Your task to perform on an android device: Open CNN.com Image 0: 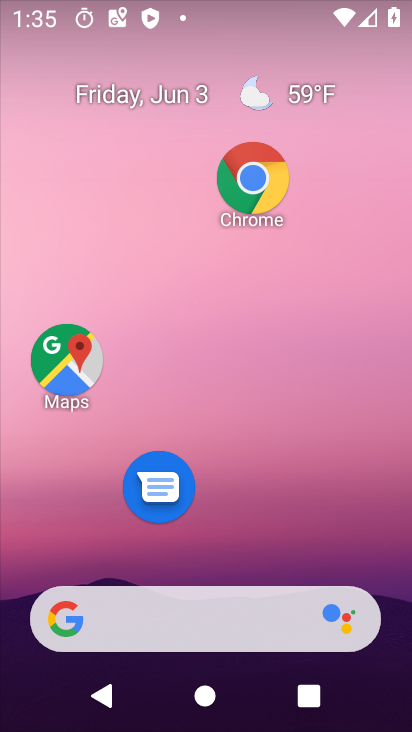
Step 0: press home button
Your task to perform on an android device: Open CNN.com Image 1: 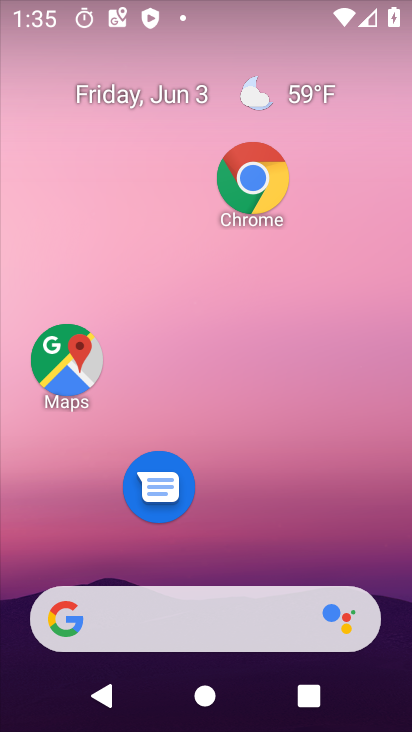
Step 1: click (249, 174)
Your task to perform on an android device: Open CNN.com Image 2: 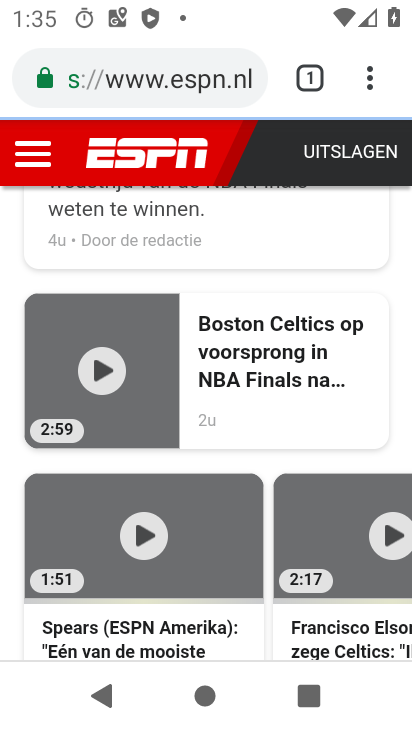
Step 2: click (303, 76)
Your task to perform on an android device: Open CNN.com Image 3: 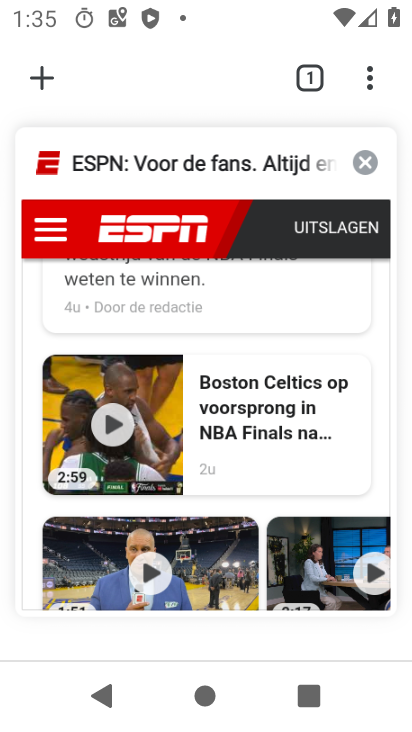
Step 3: click (368, 163)
Your task to perform on an android device: Open CNN.com Image 4: 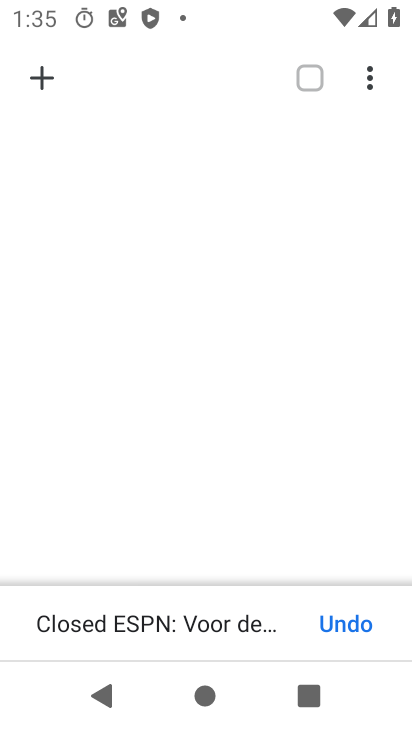
Step 4: click (44, 83)
Your task to perform on an android device: Open CNN.com Image 5: 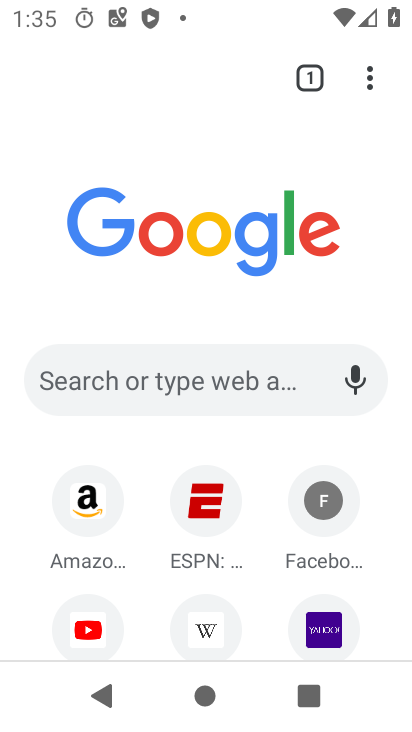
Step 5: click (151, 358)
Your task to perform on an android device: Open CNN.com Image 6: 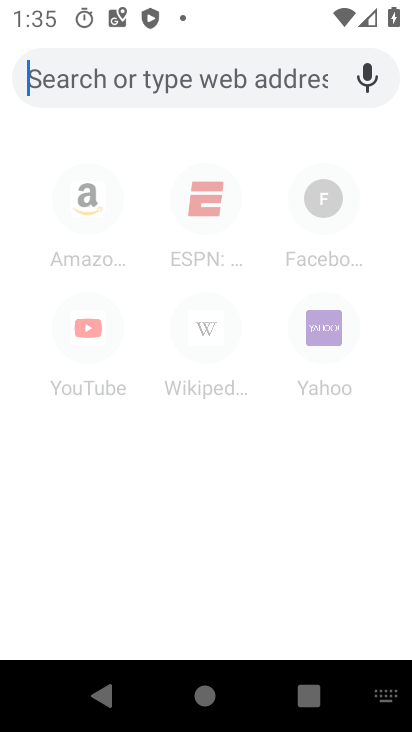
Step 6: type "cnn.com"
Your task to perform on an android device: Open CNN.com Image 7: 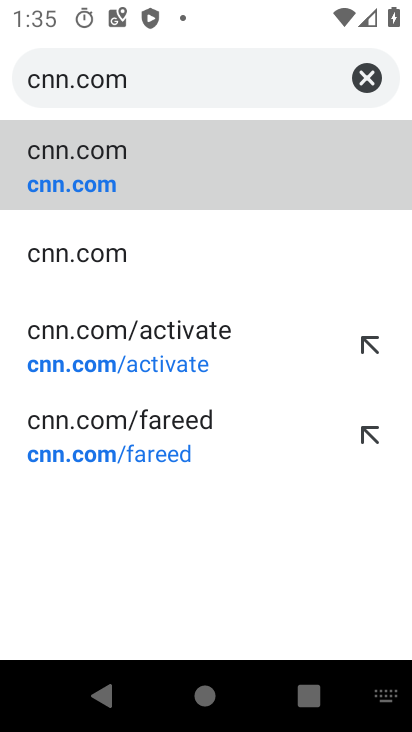
Step 7: click (138, 169)
Your task to perform on an android device: Open CNN.com Image 8: 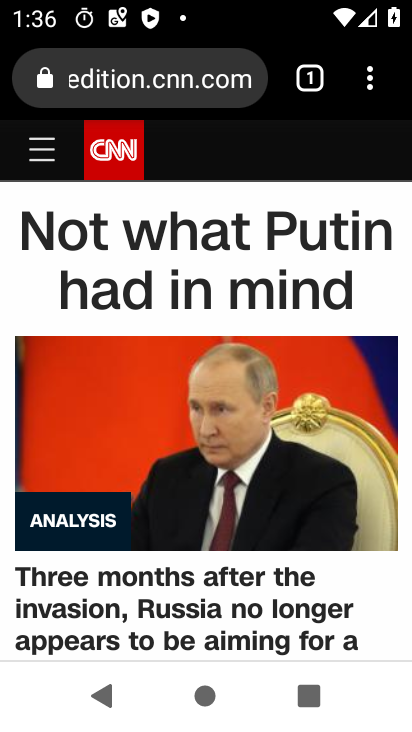
Step 8: drag from (219, 336) to (222, 179)
Your task to perform on an android device: Open CNN.com Image 9: 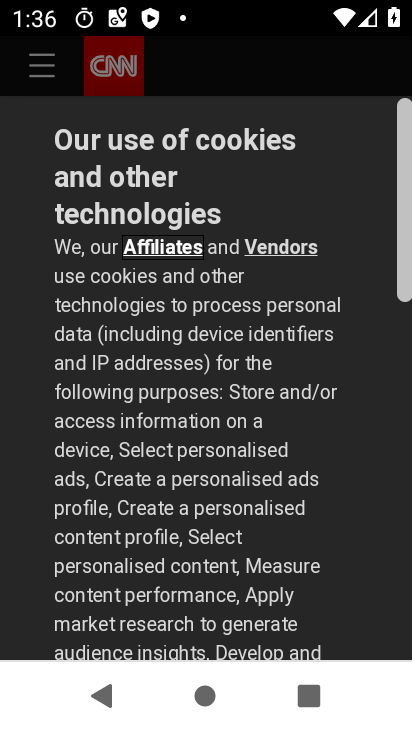
Step 9: drag from (235, 513) to (235, 107)
Your task to perform on an android device: Open CNN.com Image 10: 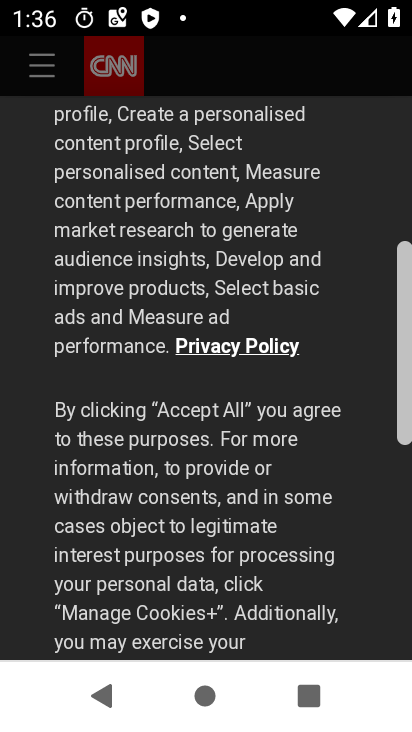
Step 10: drag from (212, 564) to (235, 178)
Your task to perform on an android device: Open CNN.com Image 11: 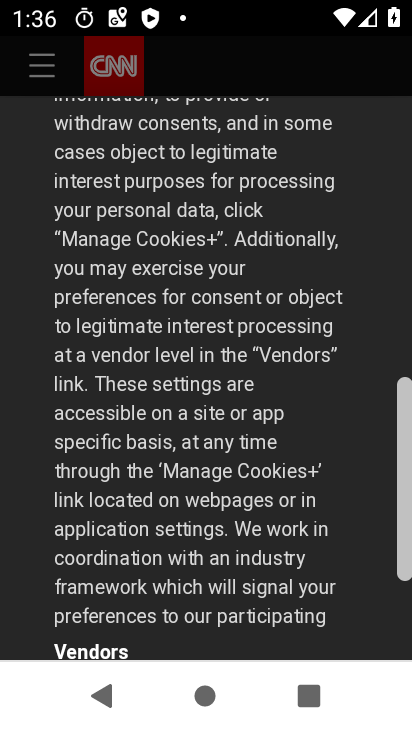
Step 11: drag from (233, 598) to (259, 148)
Your task to perform on an android device: Open CNN.com Image 12: 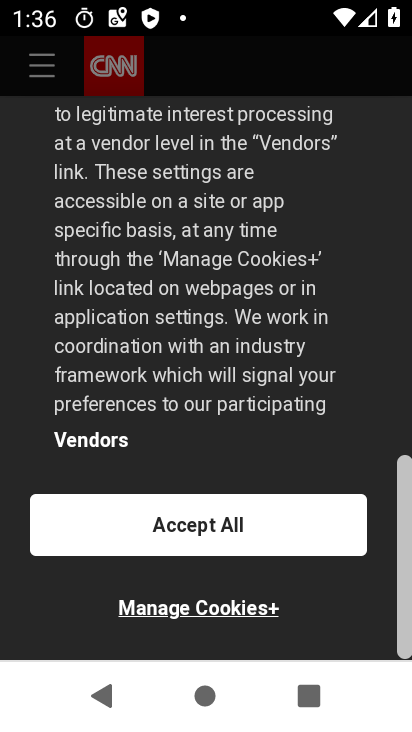
Step 12: click (252, 525)
Your task to perform on an android device: Open CNN.com Image 13: 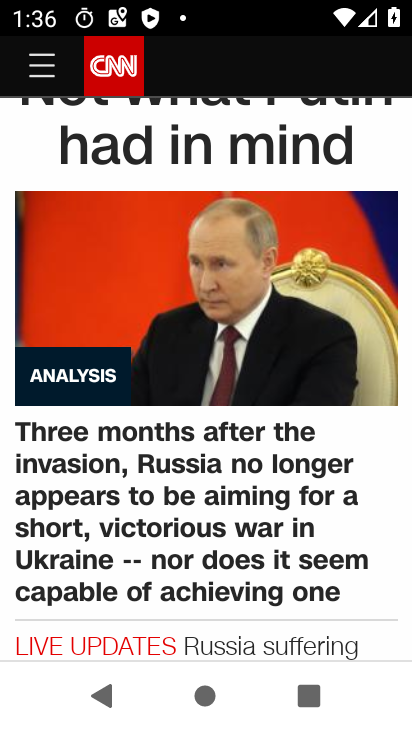
Step 13: task complete